Your task to perform on an android device: Turn off the flashlight Image 0: 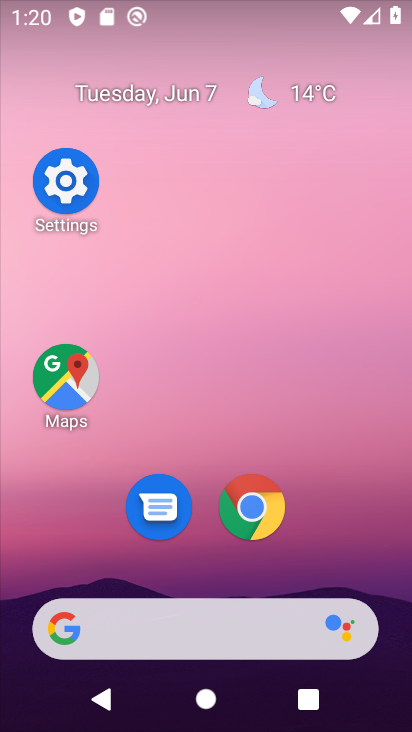
Step 0: drag from (265, 2) to (273, 474)
Your task to perform on an android device: Turn off the flashlight Image 1: 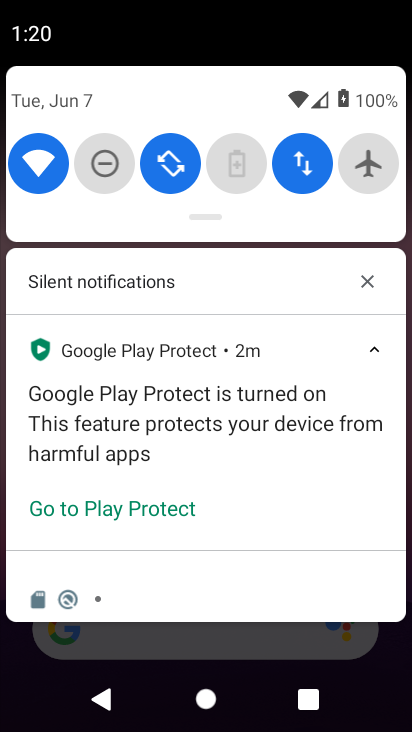
Step 1: task complete